Your task to perform on an android device: Open Google Maps Image 0: 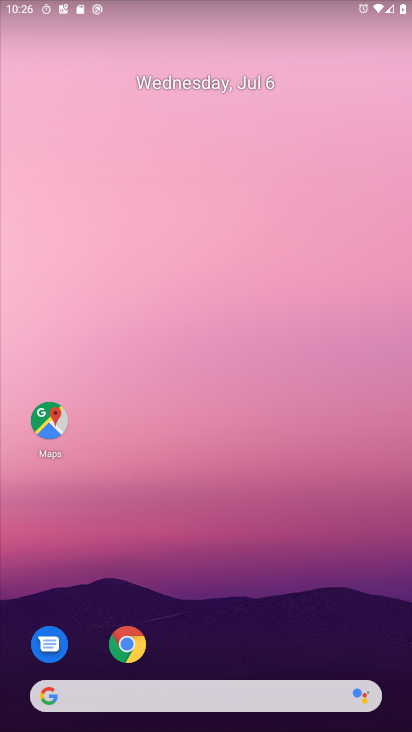
Step 0: drag from (239, 645) to (266, 188)
Your task to perform on an android device: Open Google Maps Image 1: 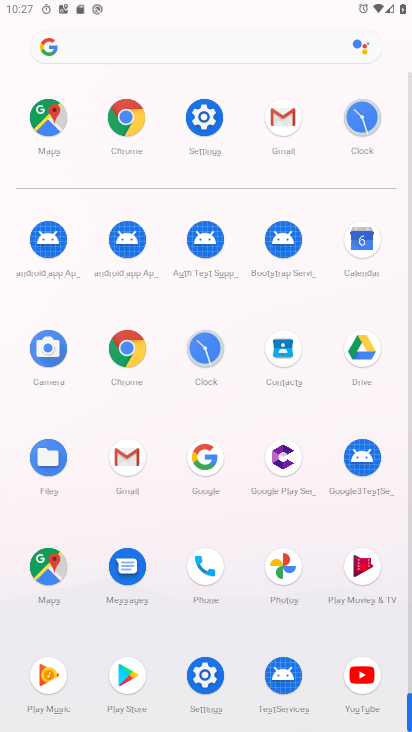
Step 1: click (39, 581)
Your task to perform on an android device: Open Google Maps Image 2: 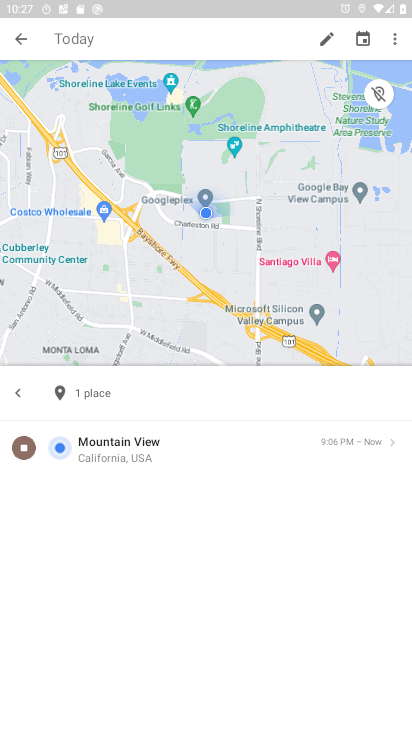
Step 2: task complete